Your task to perform on an android device: turn on translation in the chrome app Image 0: 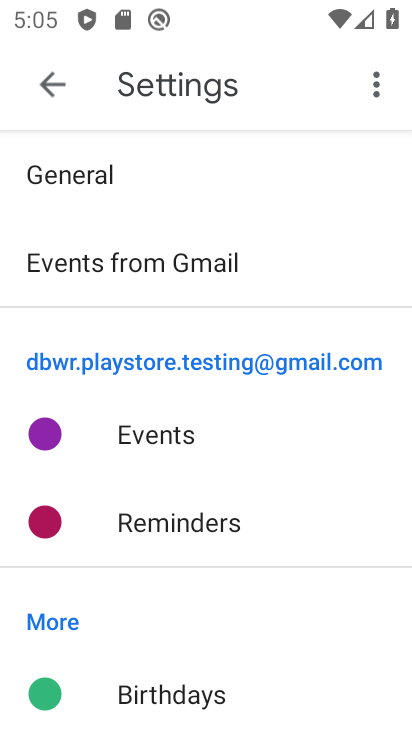
Step 0: press back button
Your task to perform on an android device: turn on translation in the chrome app Image 1: 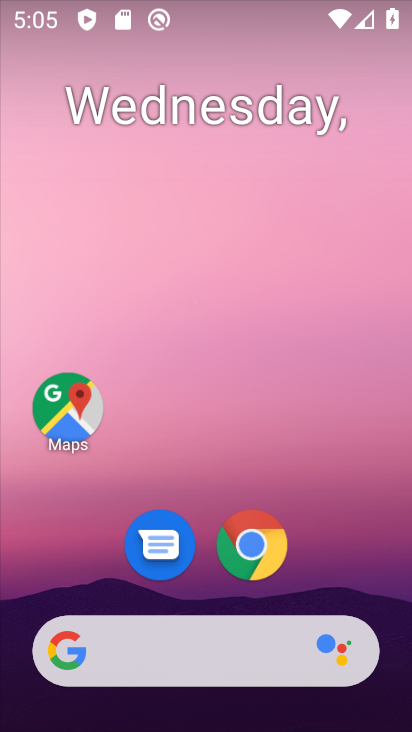
Step 1: click (255, 543)
Your task to perform on an android device: turn on translation in the chrome app Image 2: 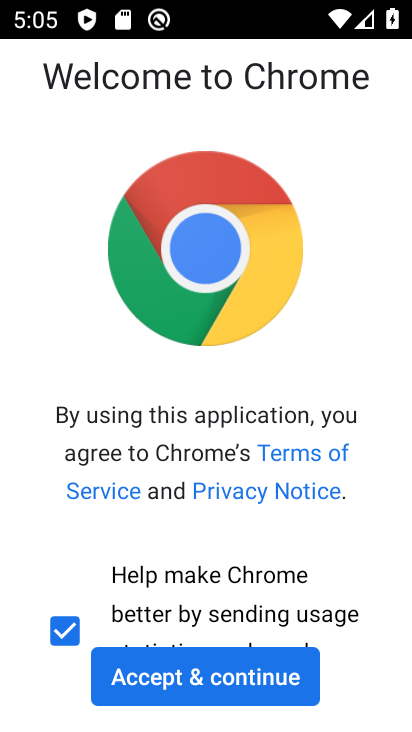
Step 2: click (176, 686)
Your task to perform on an android device: turn on translation in the chrome app Image 3: 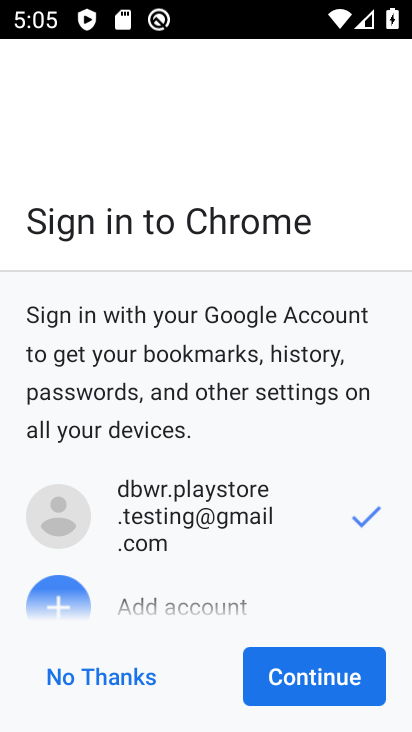
Step 3: click (280, 672)
Your task to perform on an android device: turn on translation in the chrome app Image 4: 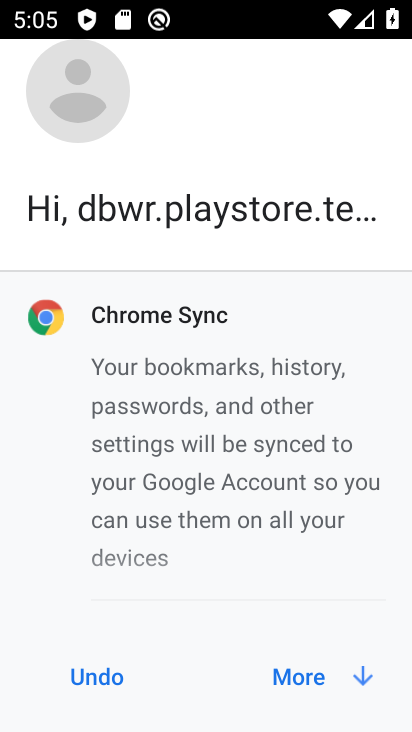
Step 4: click (317, 674)
Your task to perform on an android device: turn on translation in the chrome app Image 5: 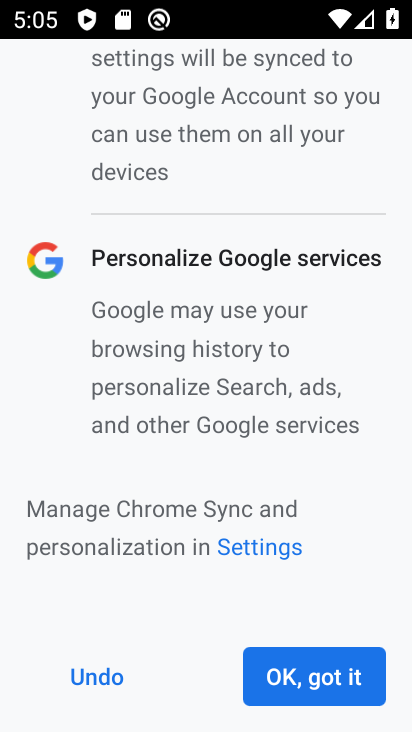
Step 5: click (318, 675)
Your task to perform on an android device: turn on translation in the chrome app Image 6: 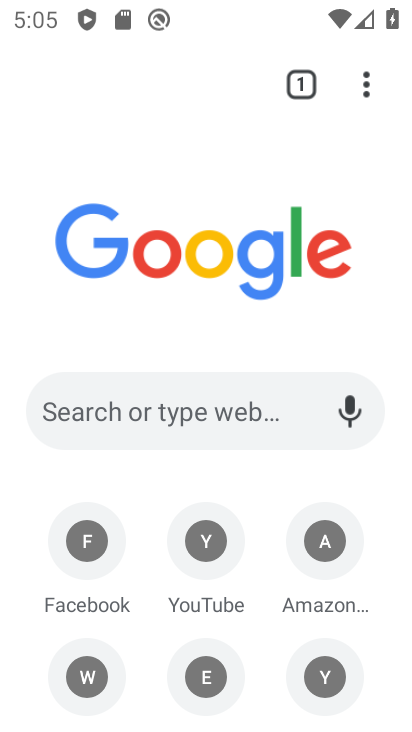
Step 6: drag from (367, 75) to (89, 589)
Your task to perform on an android device: turn on translation in the chrome app Image 7: 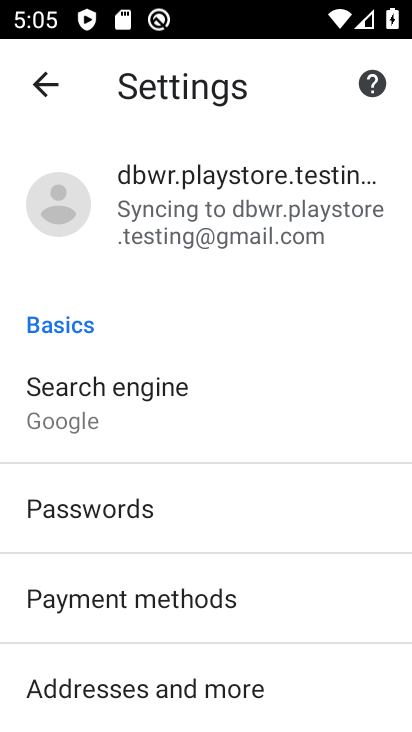
Step 7: drag from (165, 659) to (275, 119)
Your task to perform on an android device: turn on translation in the chrome app Image 8: 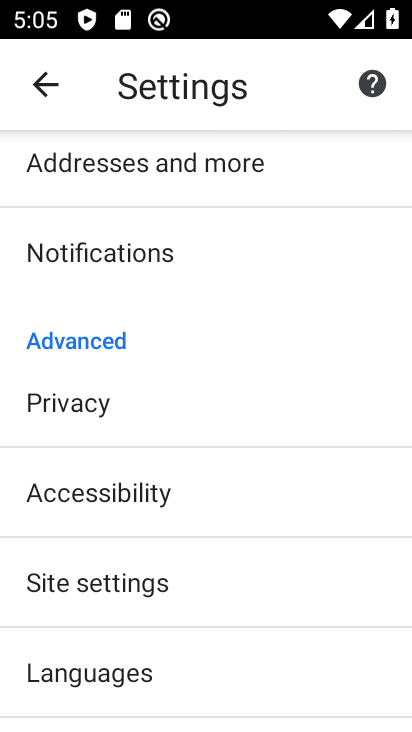
Step 8: drag from (105, 655) to (165, 427)
Your task to perform on an android device: turn on translation in the chrome app Image 9: 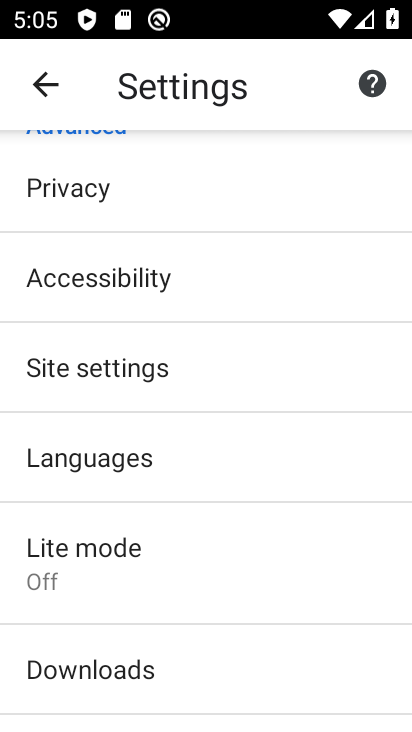
Step 9: click (79, 466)
Your task to perform on an android device: turn on translation in the chrome app Image 10: 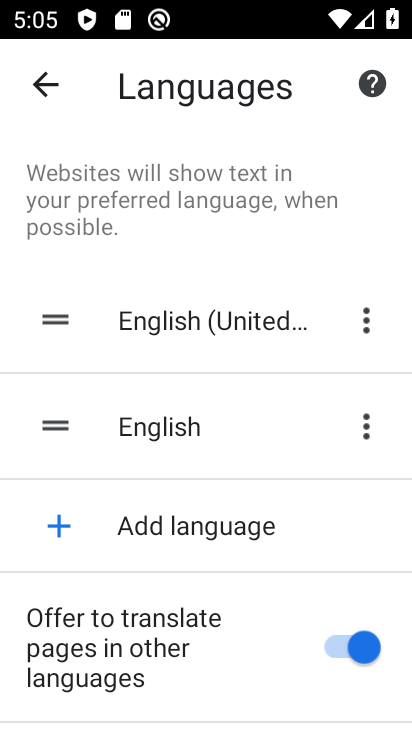
Step 10: task complete